Your task to perform on an android device: delete the emails in spam in the gmail app Image 0: 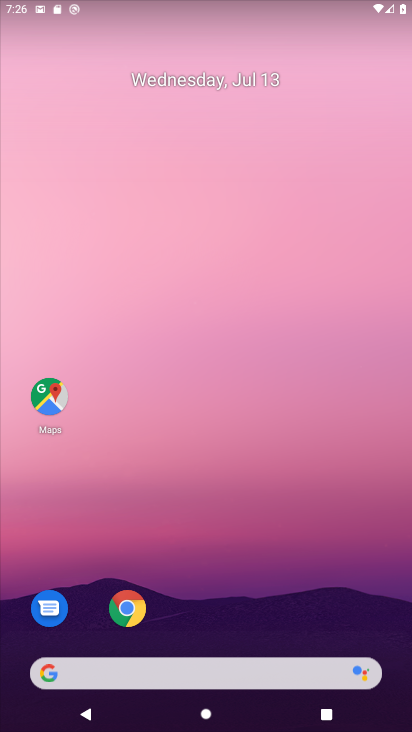
Step 0: drag from (250, 556) to (150, 88)
Your task to perform on an android device: delete the emails in spam in the gmail app Image 1: 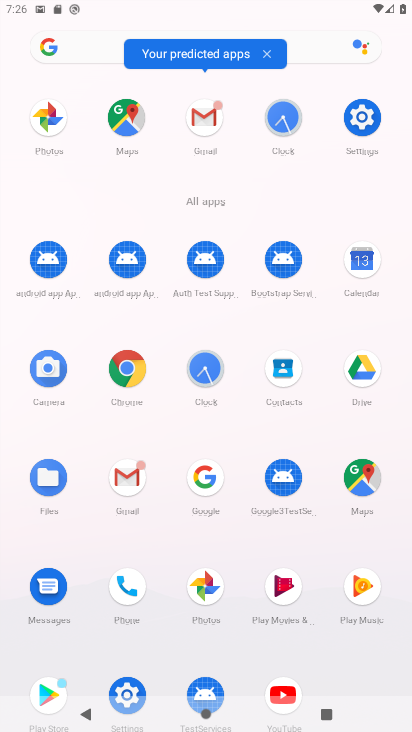
Step 1: click (202, 122)
Your task to perform on an android device: delete the emails in spam in the gmail app Image 2: 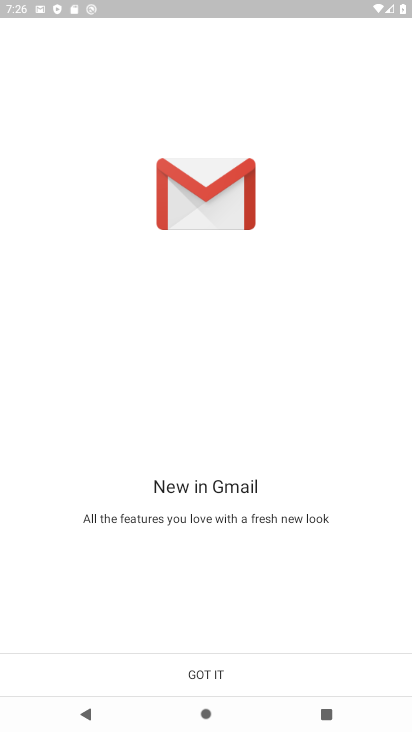
Step 2: click (212, 672)
Your task to perform on an android device: delete the emails in spam in the gmail app Image 3: 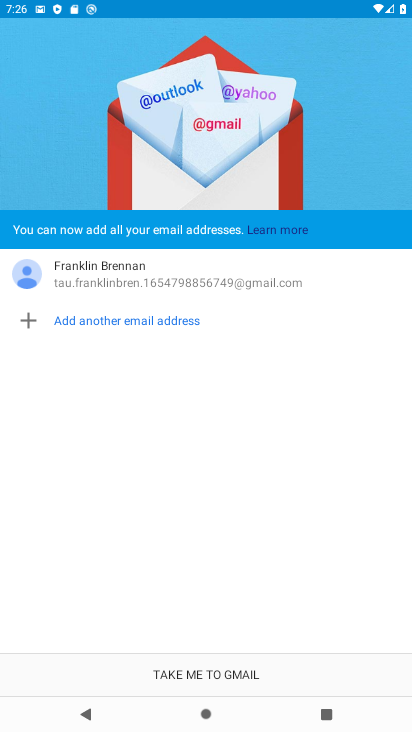
Step 3: click (212, 667)
Your task to perform on an android device: delete the emails in spam in the gmail app Image 4: 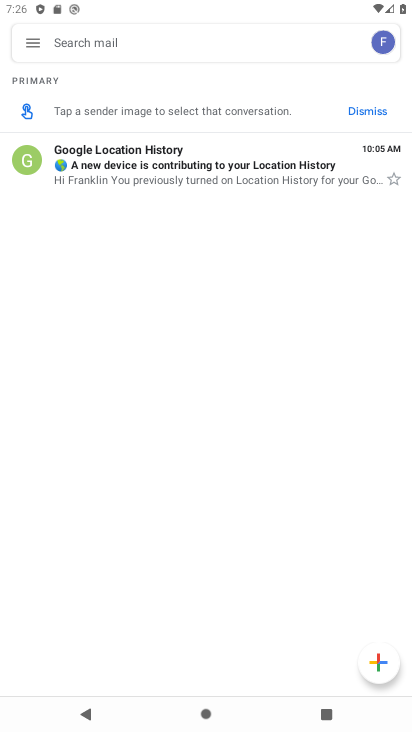
Step 4: click (28, 39)
Your task to perform on an android device: delete the emails in spam in the gmail app Image 5: 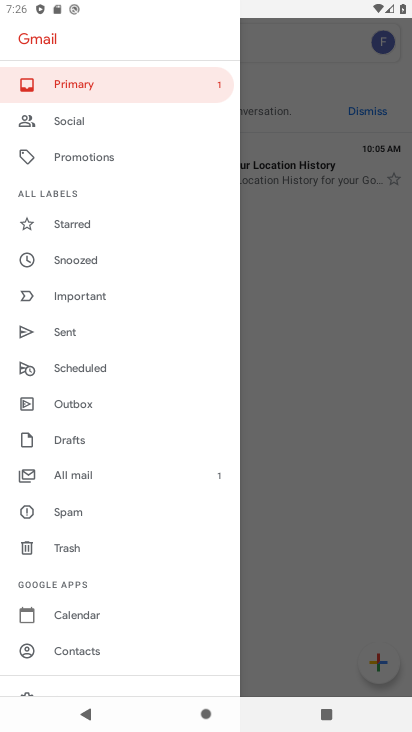
Step 5: click (62, 509)
Your task to perform on an android device: delete the emails in spam in the gmail app Image 6: 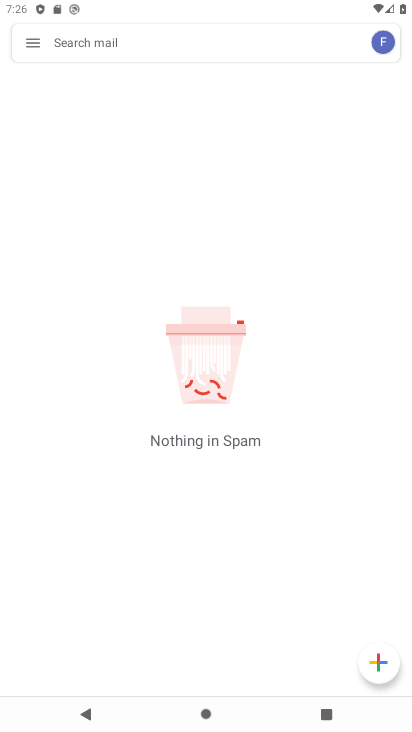
Step 6: task complete